Your task to perform on an android device: Open Maps and search for coffee Image 0: 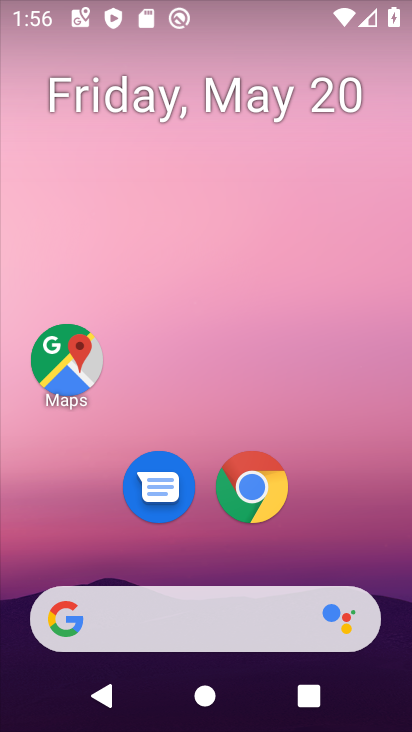
Step 0: drag from (342, 523) to (392, 25)
Your task to perform on an android device: Open Maps and search for coffee Image 1: 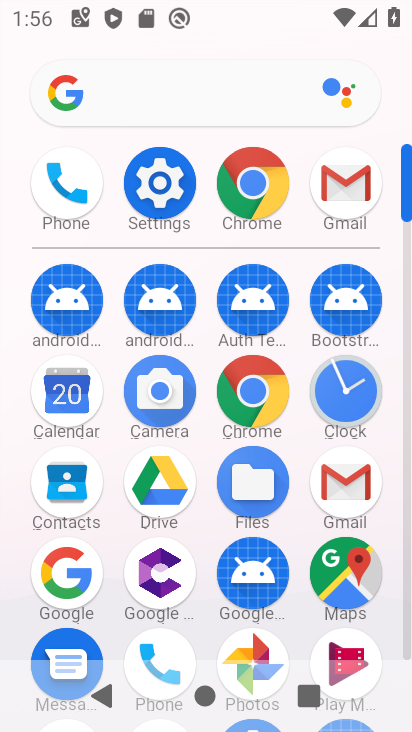
Step 1: click (337, 577)
Your task to perform on an android device: Open Maps and search for coffee Image 2: 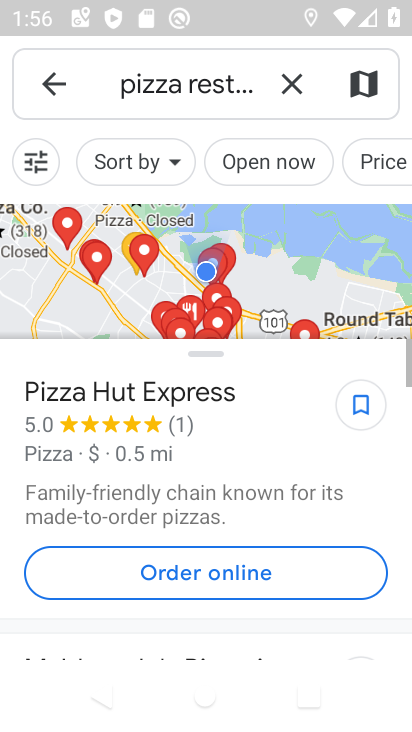
Step 2: click (278, 94)
Your task to perform on an android device: Open Maps and search for coffee Image 3: 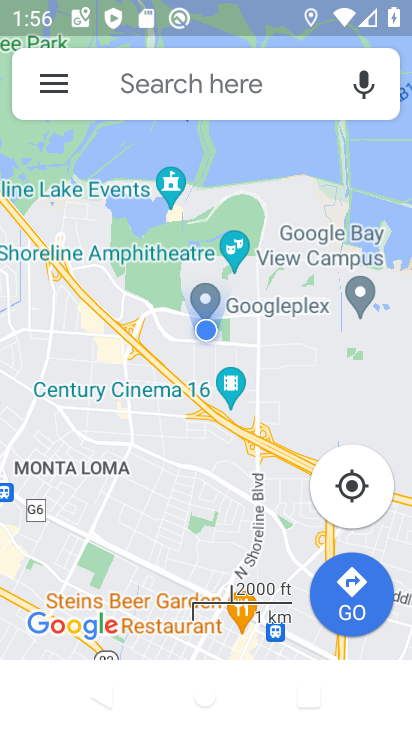
Step 3: click (268, 84)
Your task to perform on an android device: Open Maps and search for coffee Image 4: 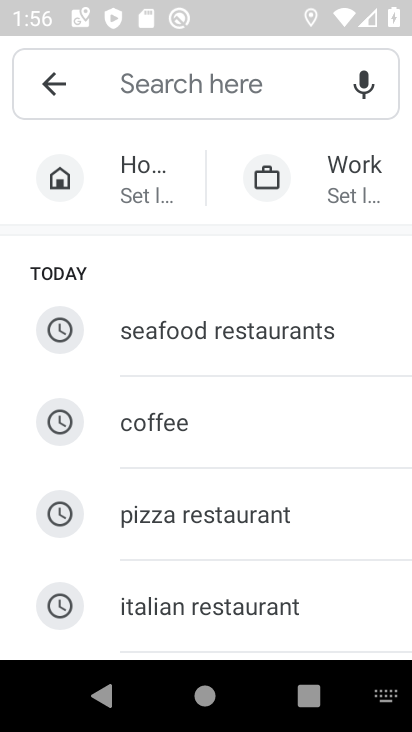
Step 4: click (101, 439)
Your task to perform on an android device: Open Maps and search for coffee Image 5: 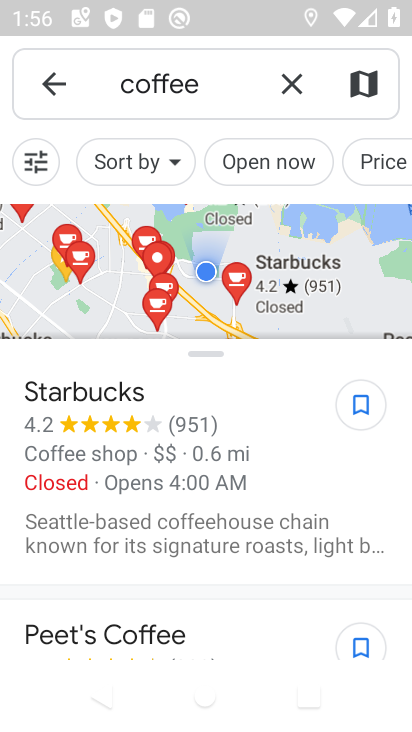
Step 5: task complete